Your task to perform on an android device: turn off wifi Image 0: 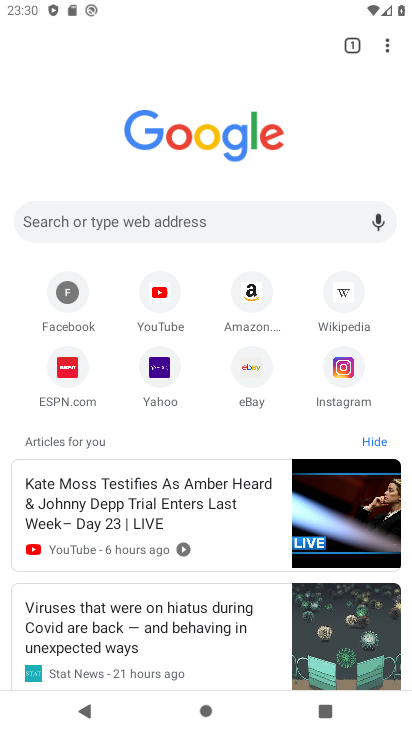
Step 0: press home button
Your task to perform on an android device: turn off wifi Image 1: 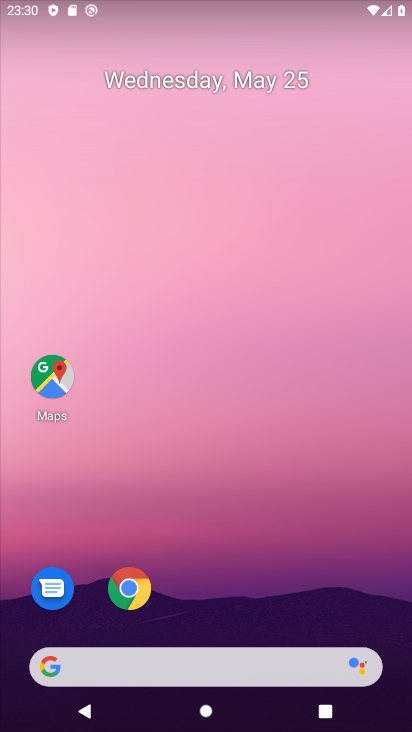
Step 1: drag from (262, 506) to (156, 9)
Your task to perform on an android device: turn off wifi Image 2: 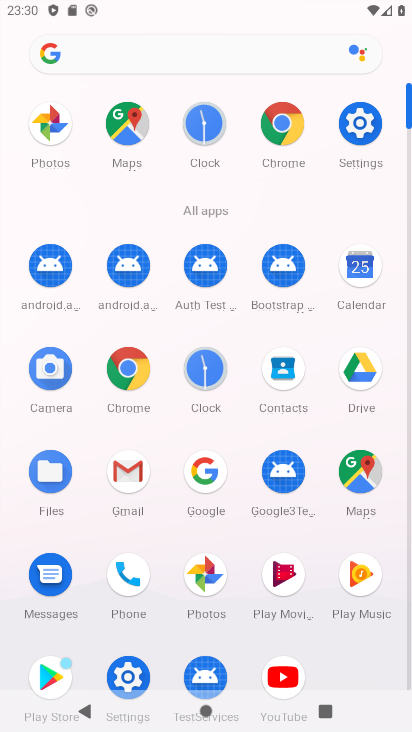
Step 2: click (351, 120)
Your task to perform on an android device: turn off wifi Image 3: 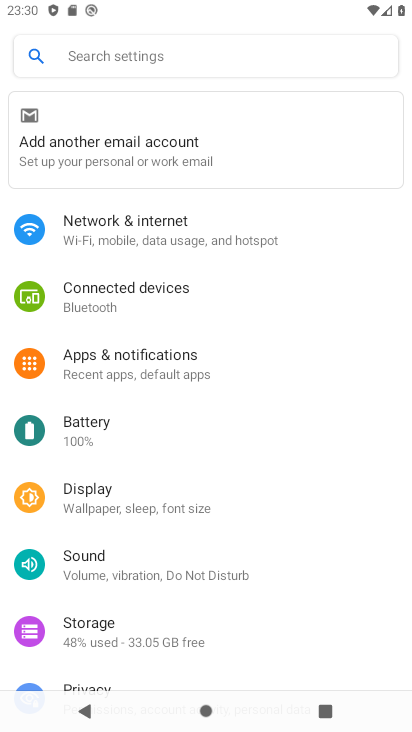
Step 3: click (127, 220)
Your task to perform on an android device: turn off wifi Image 4: 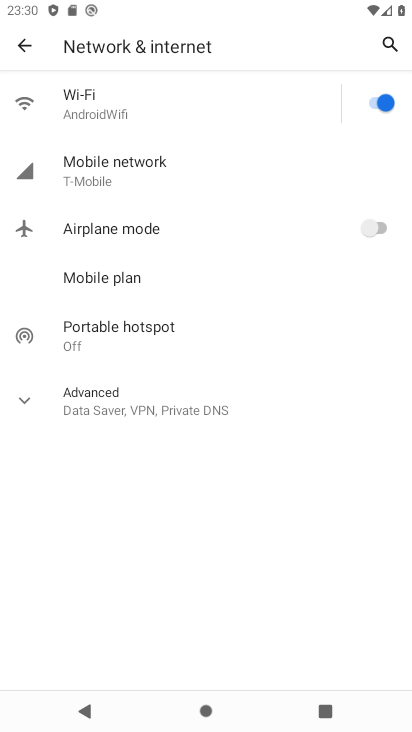
Step 4: click (380, 96)
Your task to perform on an android device: turn off wifi Image 5: 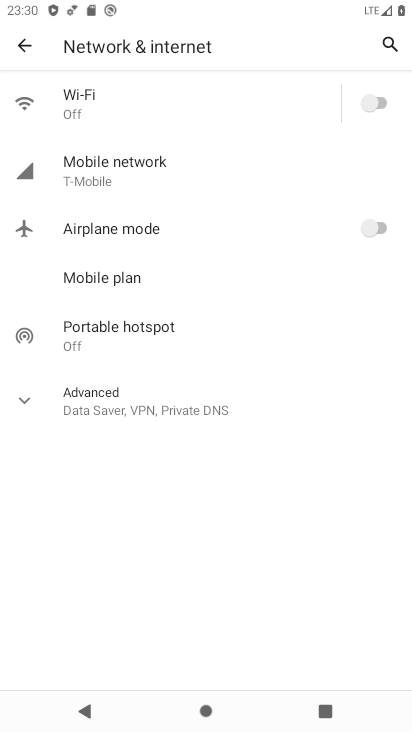
Step 5: task complete